Your task to perform on an android device: Open the Play Movies app and select the watchlist tab. Image 0: 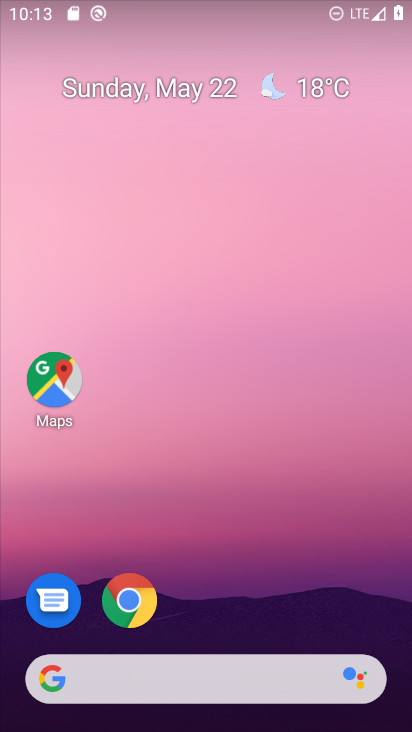
Step 0: drag from (357, 625) to (244, 117)
Your task to perform on an android device: Open the Play Movies app and select the watchlist tab. Image 1: 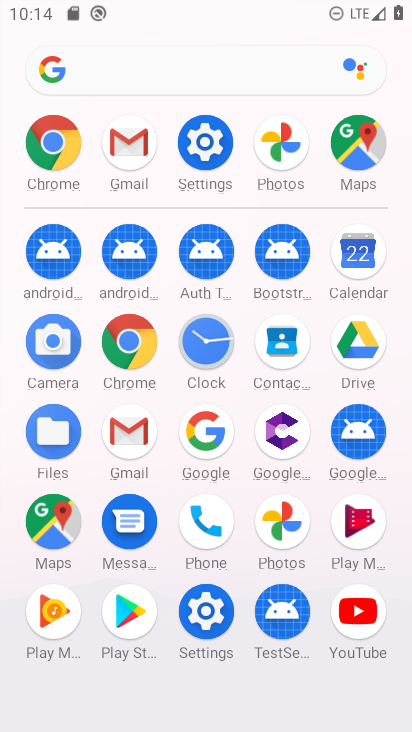
Step 1: click (345, 528)
Your task to perform on an android device: Open the Play Movies app and select the watchlist tab. Image 2: 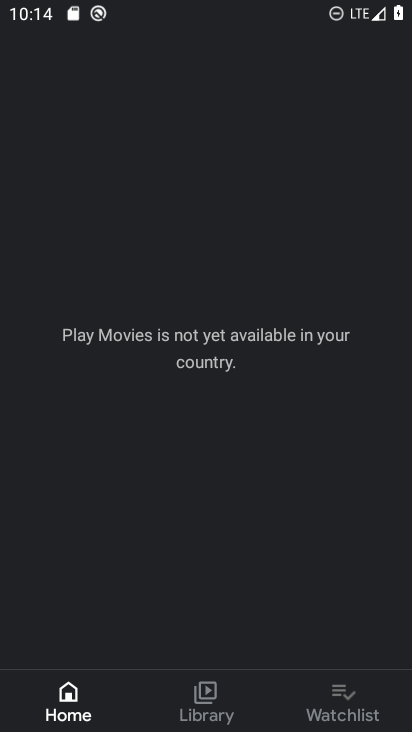
Step 2: click (343, 699)
Your task to perform on an android device: Open the Play Movies app and select the watchlist tab. Image 3: 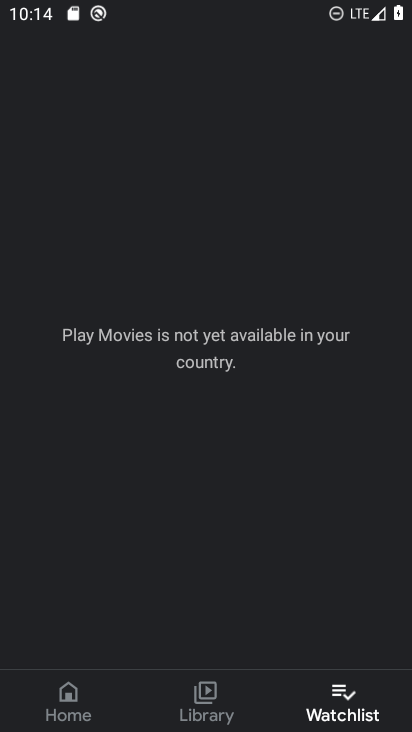
Step 3: task complete